Your task to perform on an android device: refresh tabs in the chrome app Image 0: 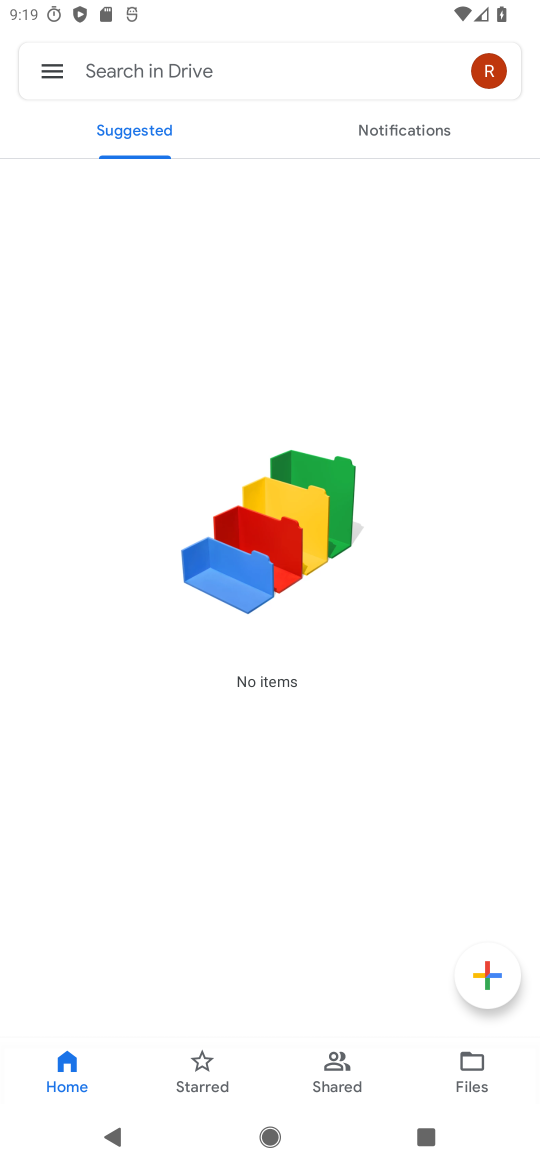
Step 0: press home button
Your task to perform on an android device: refresh tabs in the chrome app Image 1: 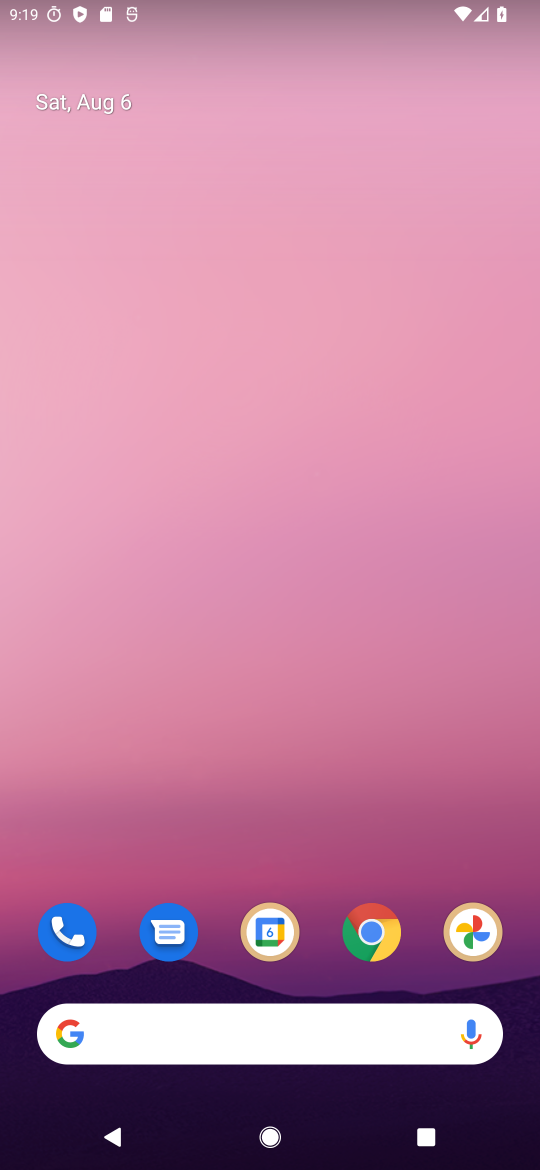
Step 1: click (370, 939)
Your task to perform on an android device: refresh tabs in the chrome app Image 2: 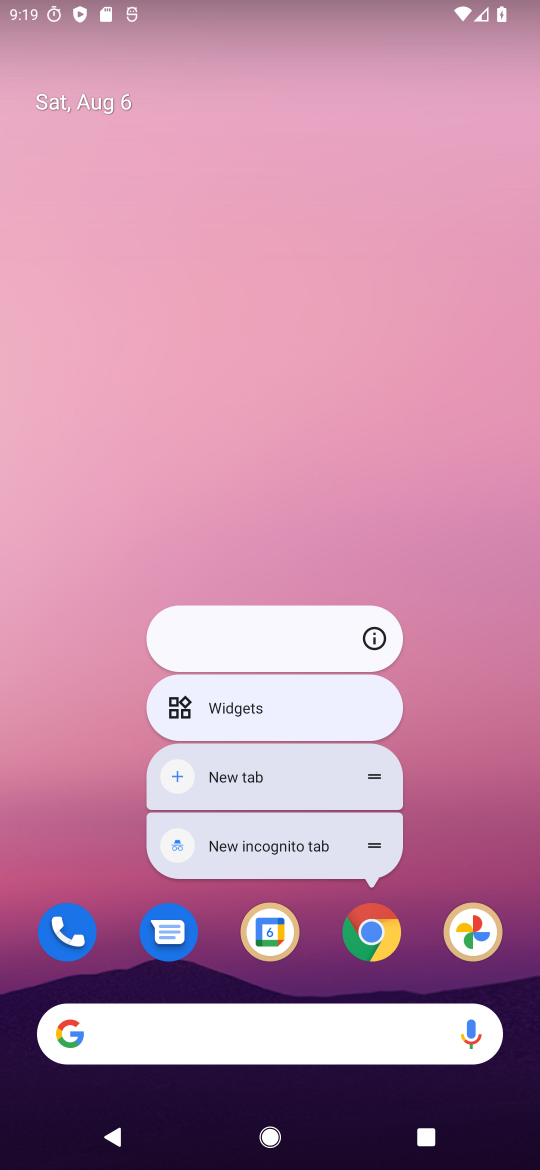
Step 2: click (370, 938)
Your task to perform on an android device: refresh tabs in the chrome app Image 3: 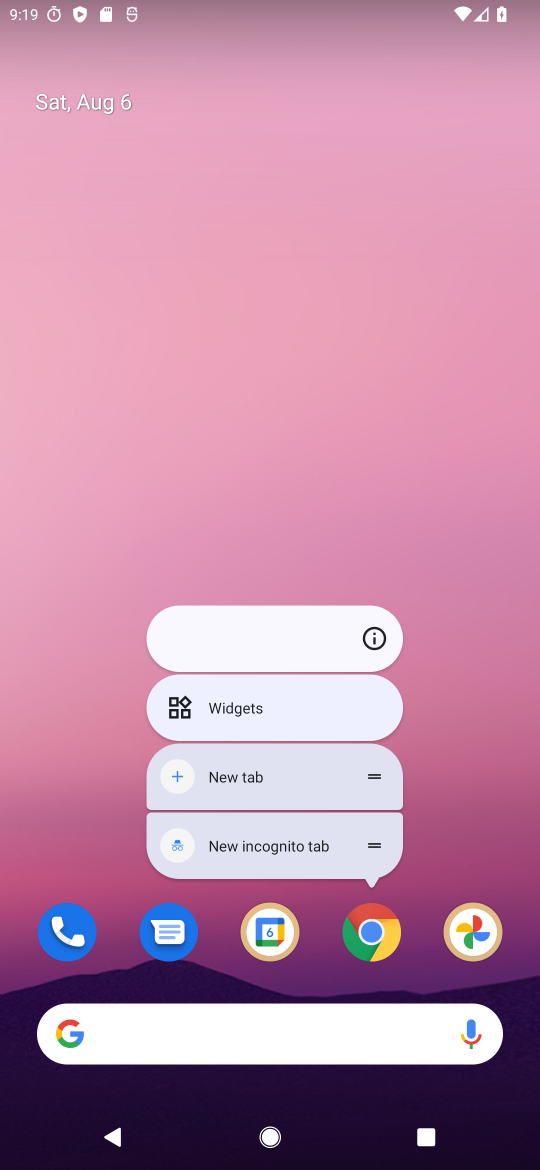
Step 3: click (370, 938)
Your task to perform on an android device: refresh tabs in the chrome app Image 4: 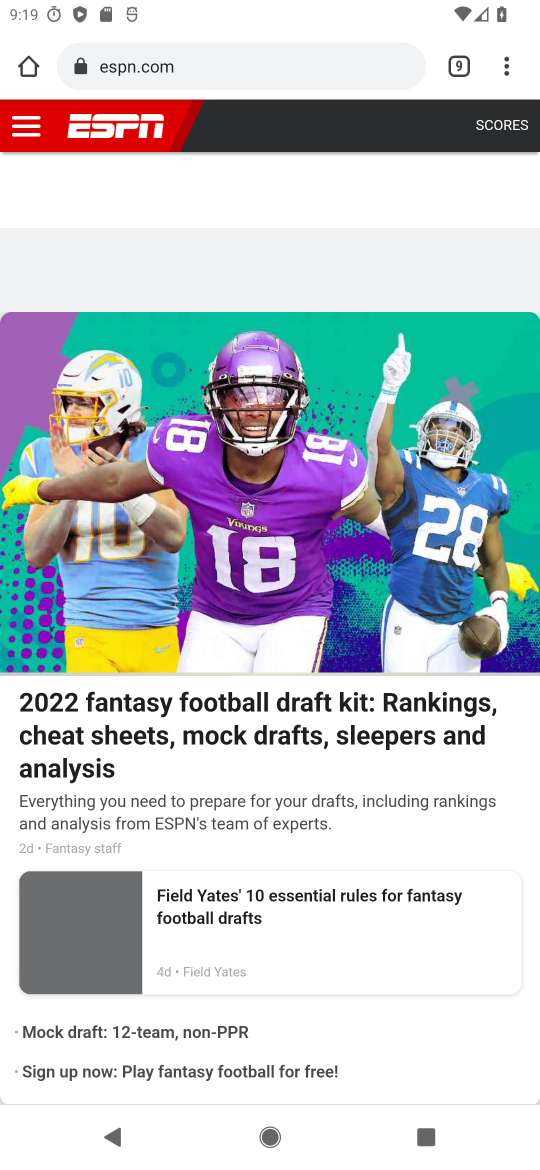
Step 4: click (507, 84)
Your task to perform on an android device: refresh tabs in the chrome app Image 5: 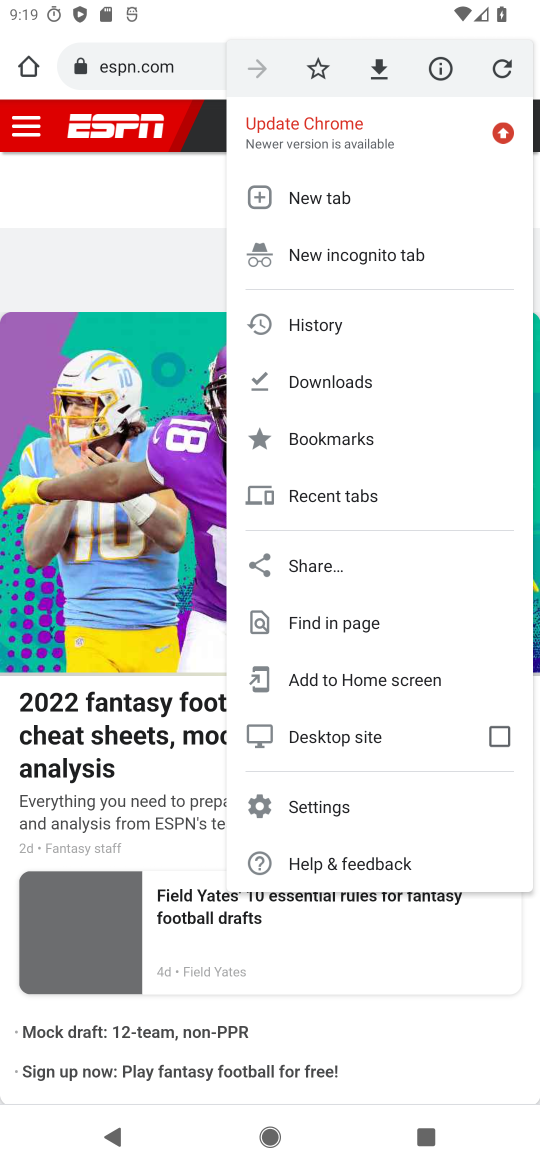
Step 5: click (500, 62)
Your task to perform on an android device: refresh tabs in the chrome app Image 6: 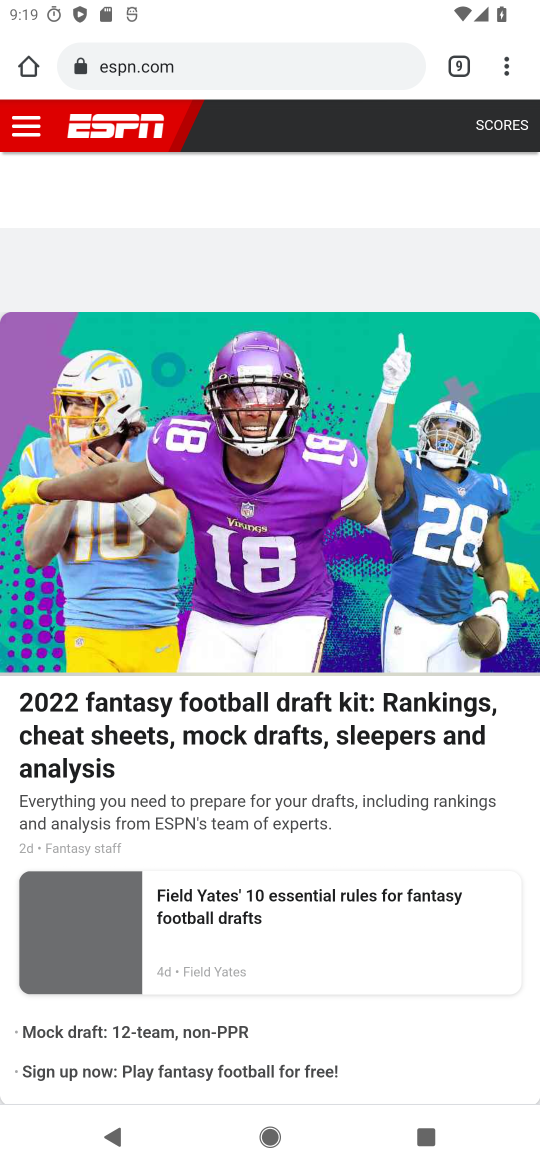
Step 6: click (507, 81)
Your task to perform on an android device: refresh tabs in the chrome app Image 7: 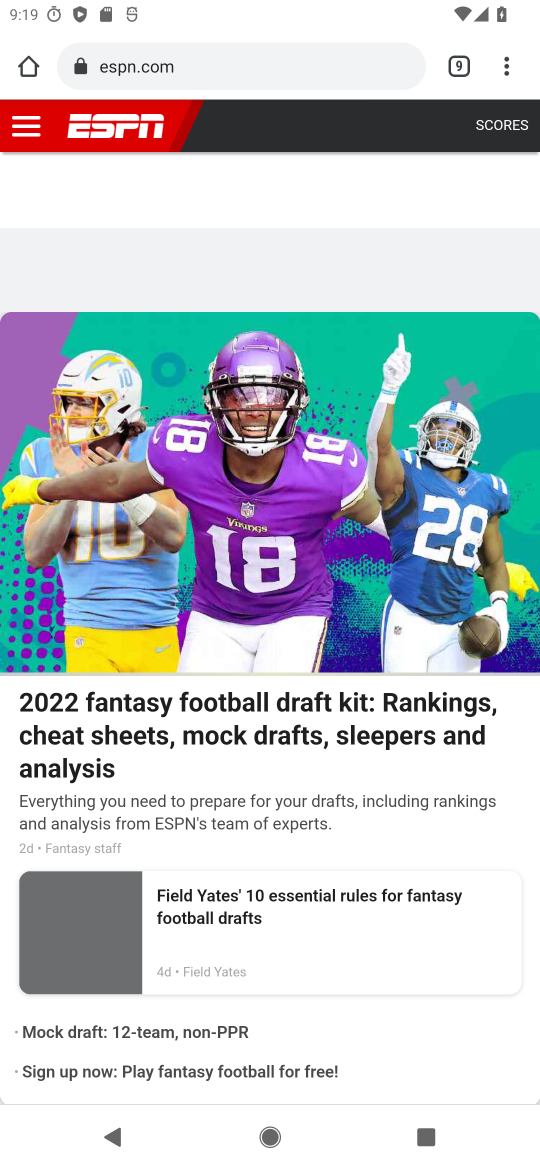
Step 7: click (503, 84)
Your task to perform on an android device: refresh tabs in the chrome app Image 8: 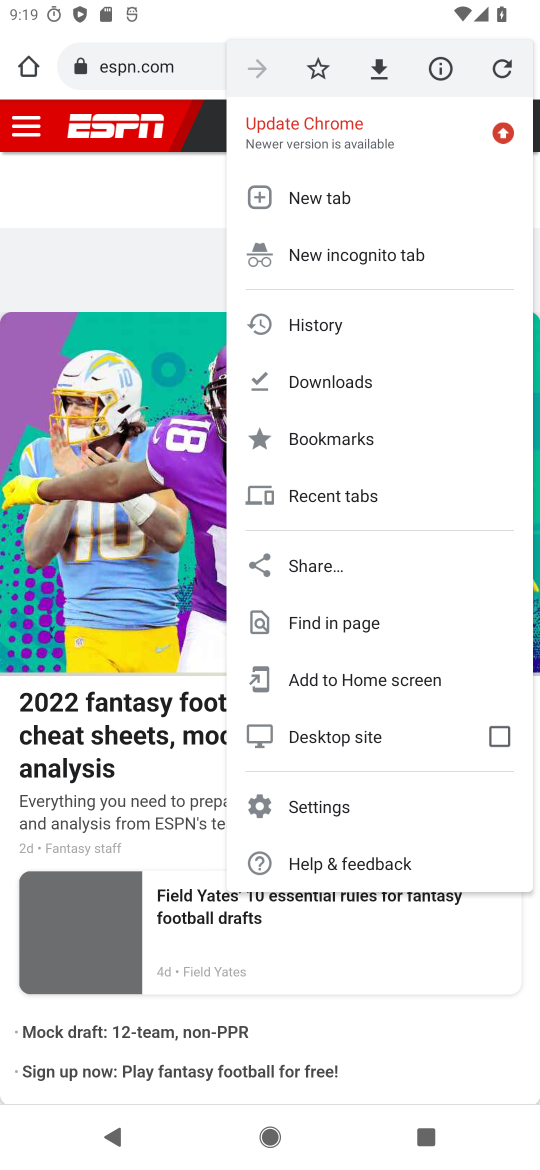
Step 8: click (503, 67)
Your task to perform on an android device: refresh tabs in the chrome app Image 9: 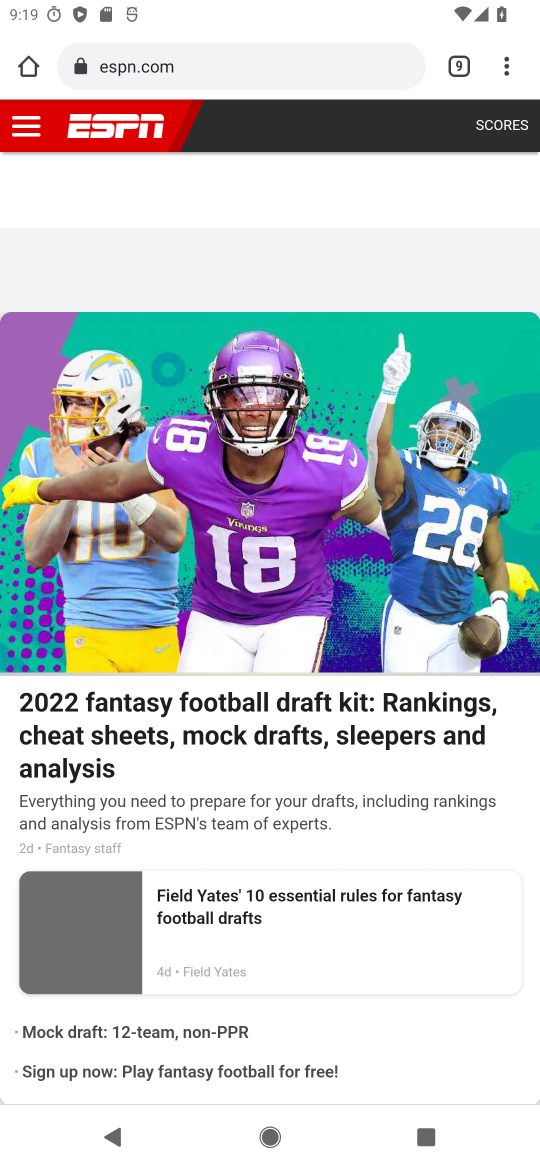
Step 9: task complete